Your task to perform on an android device: change the clock display to show seconds Image 0: 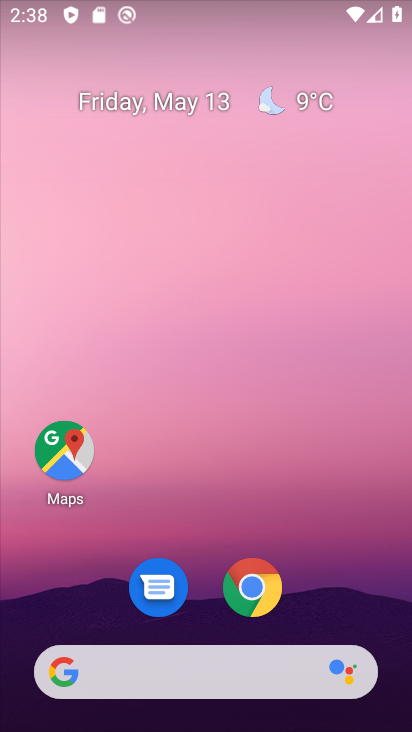
Step 0: drag from (328, 573) to (318, 244)
Your task to perform on an android device: change the clock display to show seconds Image 1: 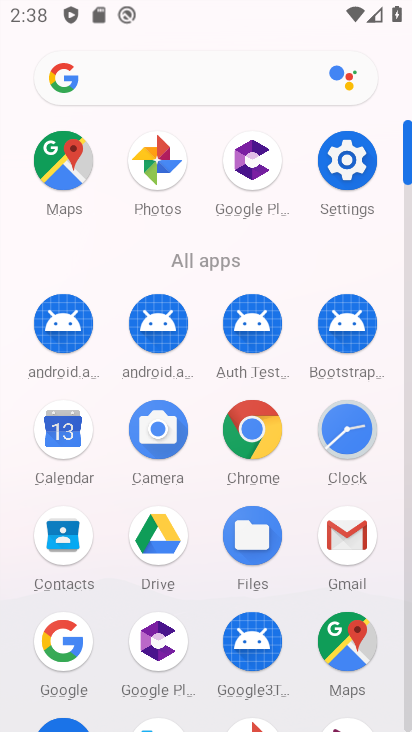
Step 1: click (348, 154)
Your task to perform on an android device: change the clock display to show seconds Image 2: 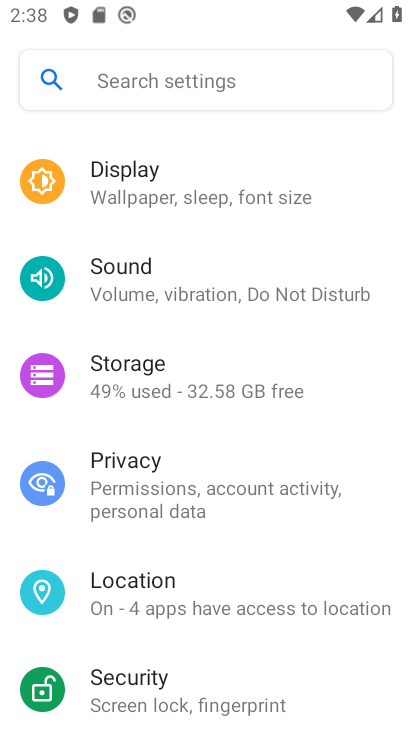
Step 2: press home button
Your task to perform on an android device: change the clock display to show seconds Image 3: 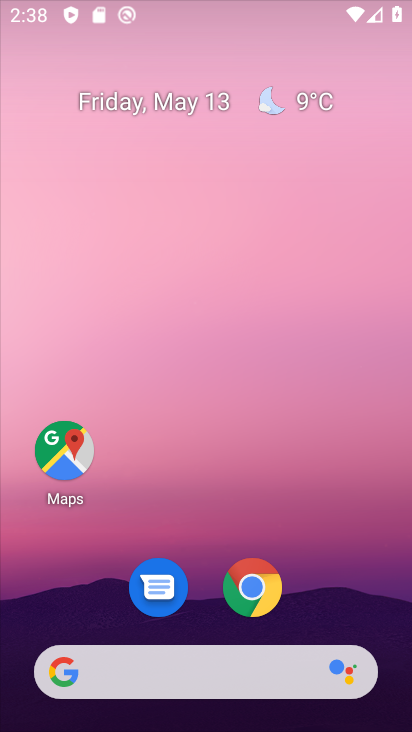
Step 3: drag from (293, 579) to (293, 172)
Your task to perform on an android device: change the clock display to show seconds Image 4: 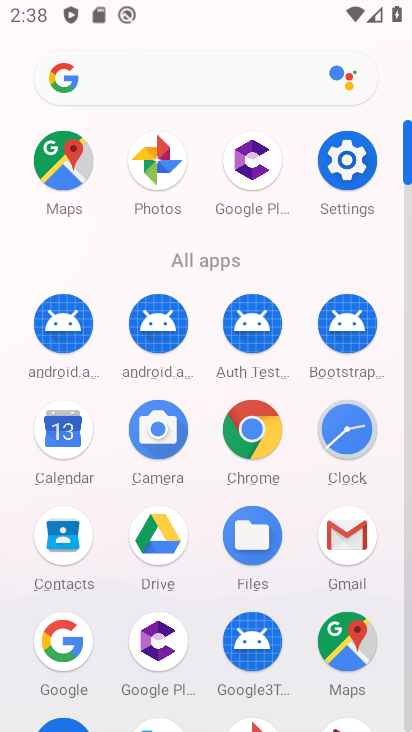
Step 4: click (349, 430)
Your task to perform on an android device: change the clock display to show seconds Image 5: 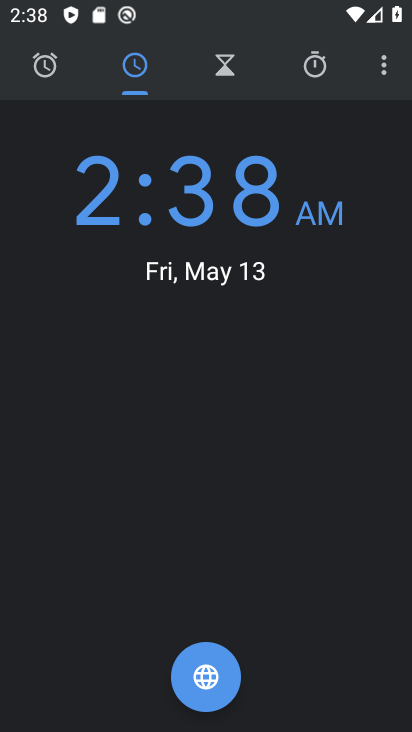
Step 5: click (382, 73)
Your task to perform on an android device: change the clock display to show seconds Image 6: 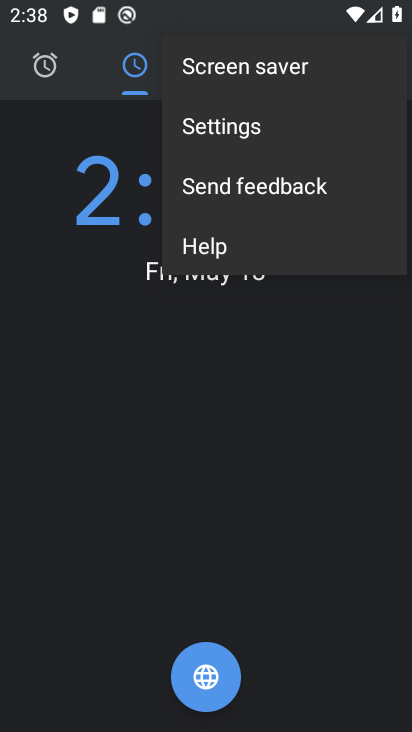
Step 6: click (255, 127)
Your task to perform on an android device: change the clock display to show seconds Image 7: 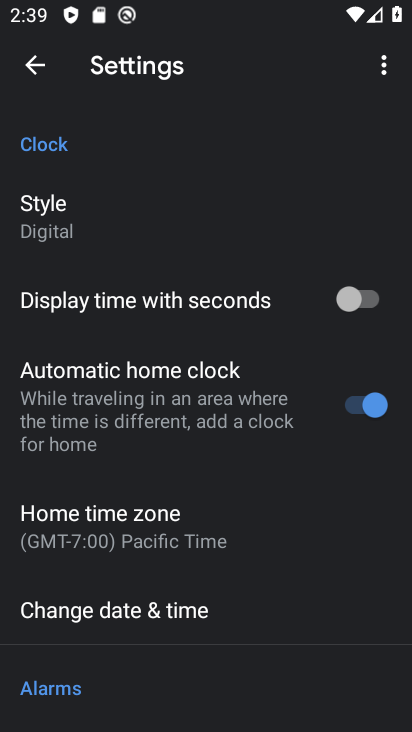
Step 7: click (366, 295)
Your task to perform on an android device: change the clock display to show seconds Image 8: 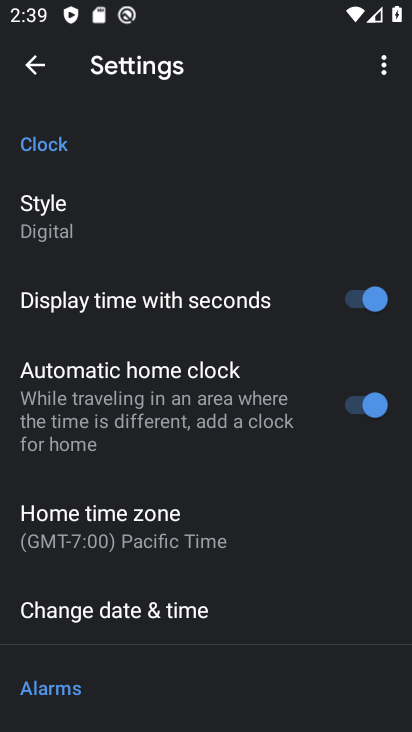
Step 8: task complete